Your task to perform on an android device: Open settings on Google Maps Image 0: 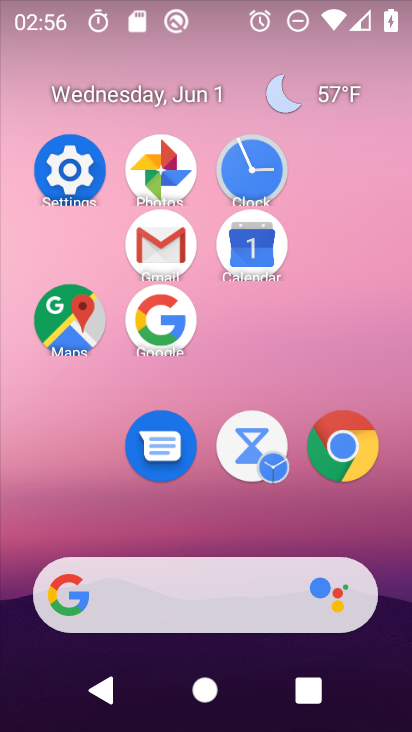
Step 0: click (70, 289)
Your task to perform on an android device: Open settings on Google Maps Image 1: 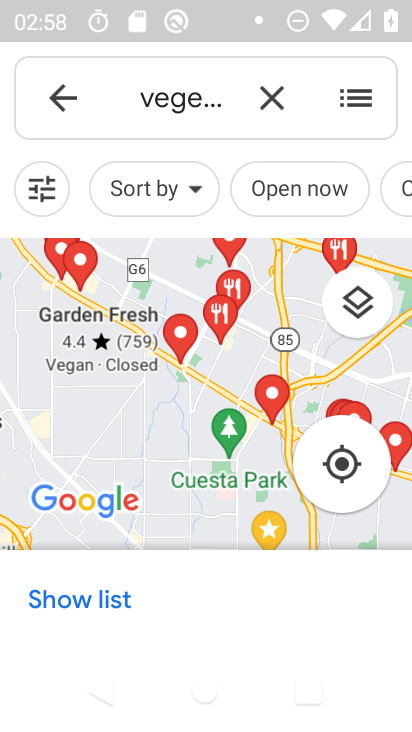
Step 1: click (56, 108)
Your task to perform on an android device: Open settings on Google Maps Image 2: 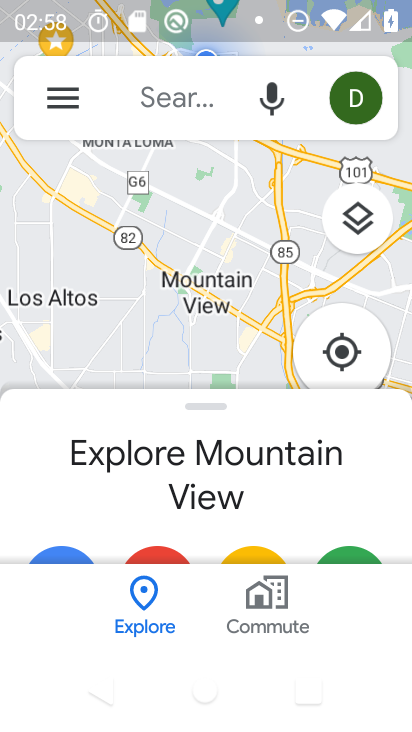
Step 2: click (40, 114)
Your task to perform on an android device: Open settings on Google Maps Image 3: 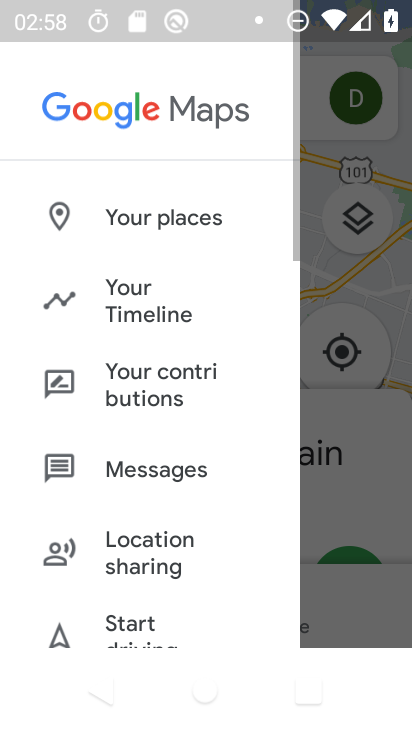
Step 3: drag from (196, 511) to (203, 187)
Your task to perform on an android device: Open settings on Google Maps Image 4: 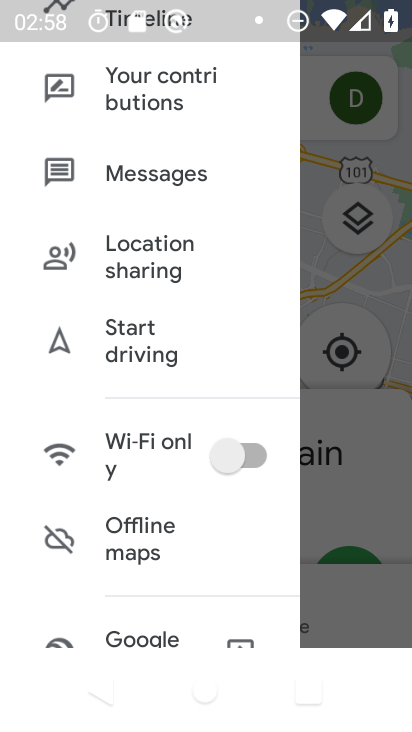
Step 4: drag from (215, 185) to (210, 127)
Your task to perform on an android device: Open settings on Google Maps Image 5: 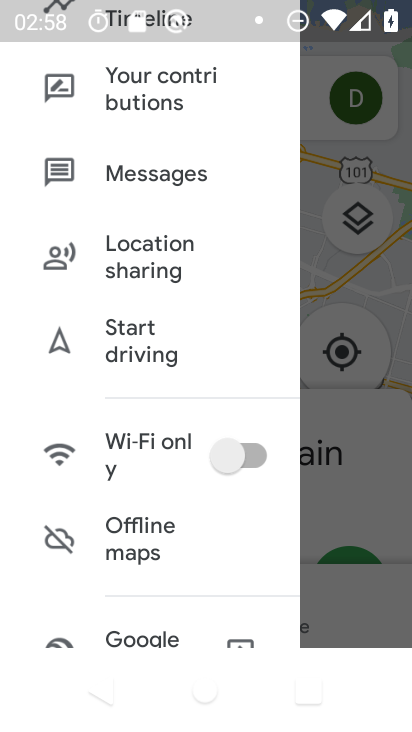
Step 5: drag from (172, 527) to (140, 134)
Your task to perform on an android device: Open settings on Google Maps Image 6: 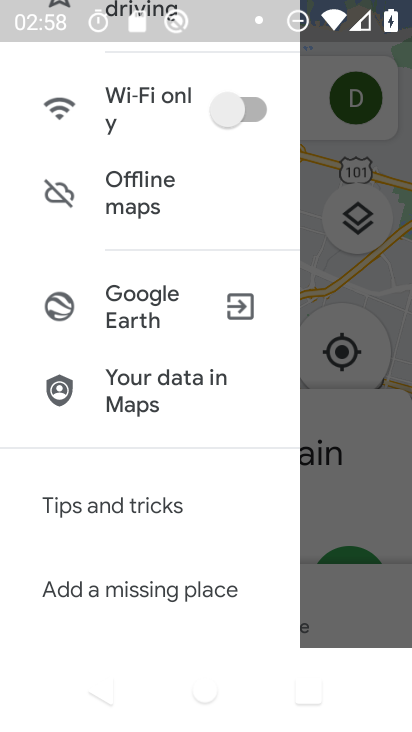
Step 6: drag from (157, 218) to (154, 182)
Your task to perform on an android device: Open settings on Google Maps Image 7: 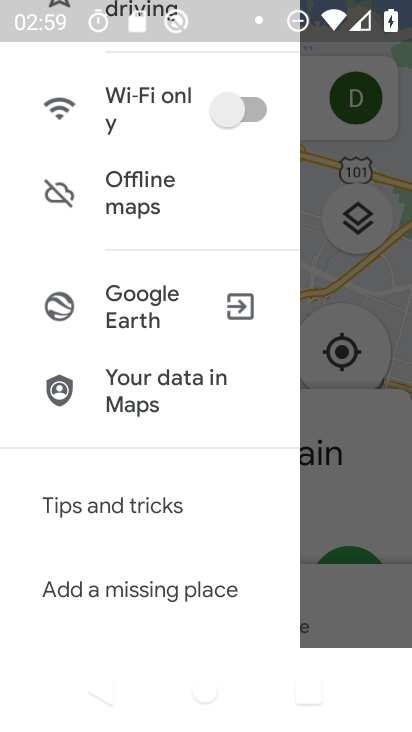
Step 7: drag from (165, 403) to (162, 164)
Your task to perform on an android device: Open settings on Google Maps Image 8: 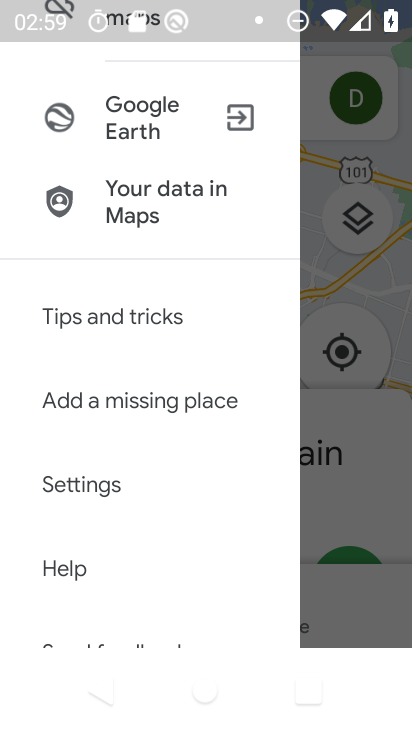
Step 8: click (156, 488)
Your task to perform on an android device: Open settings on Google Maps Image 9: 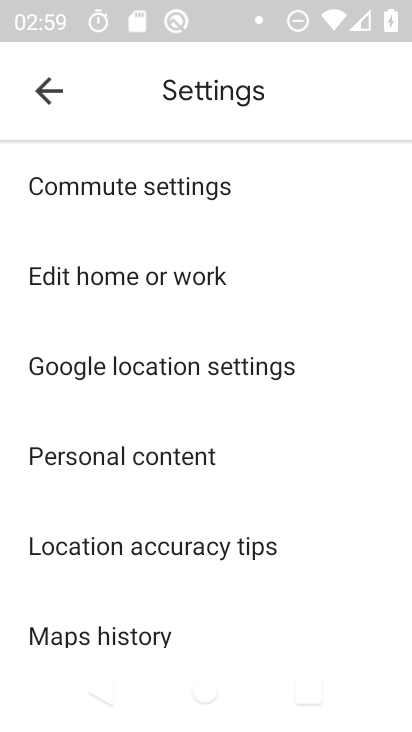
Step 9: task complete